Your task to perform on an android device: Open the stopwatch Image 0: 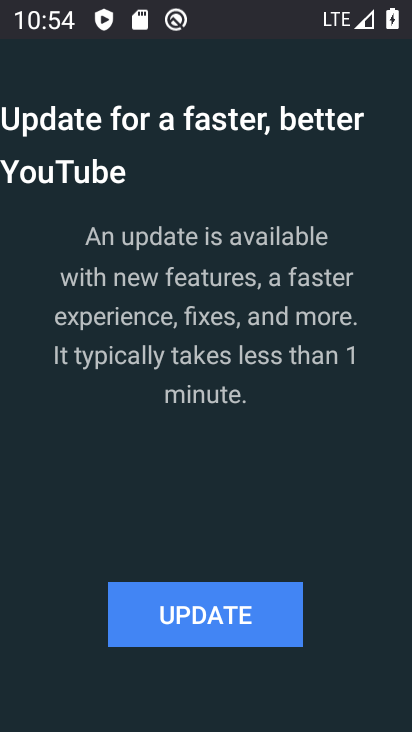
Step 0: press back button
Your task to perform on an android device: Open the stopwatch Image 1: 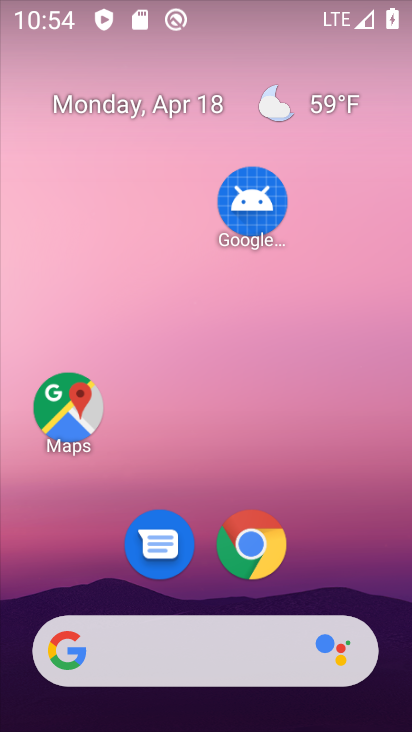
Step 1: drag from (193, 571) to (226, 230)
Your task to perform on an android device: Open the stopwatch Image 2: 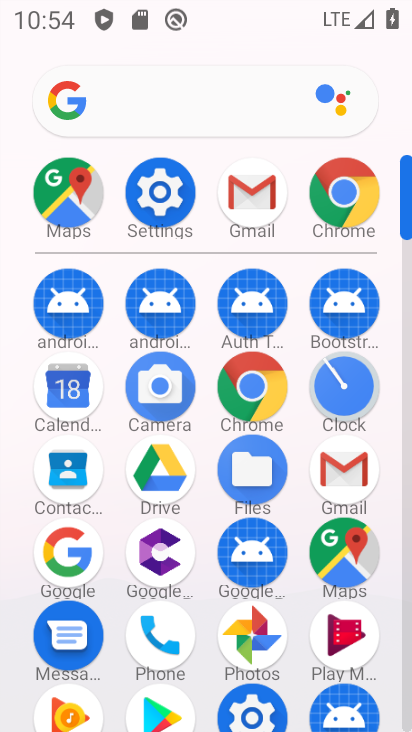
Step 2: click (331, 387)
Your task to perform on an android device: Open the stopwatch Image 3: 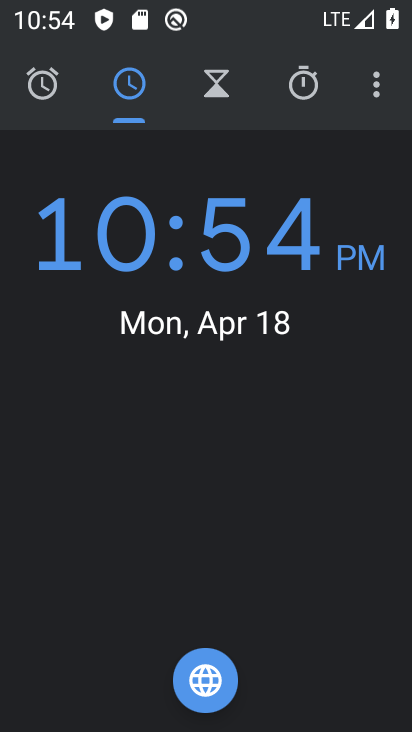
Step 3: click (317, 90)
Your task to perform on an android device: Open the stopwatch Image 4: 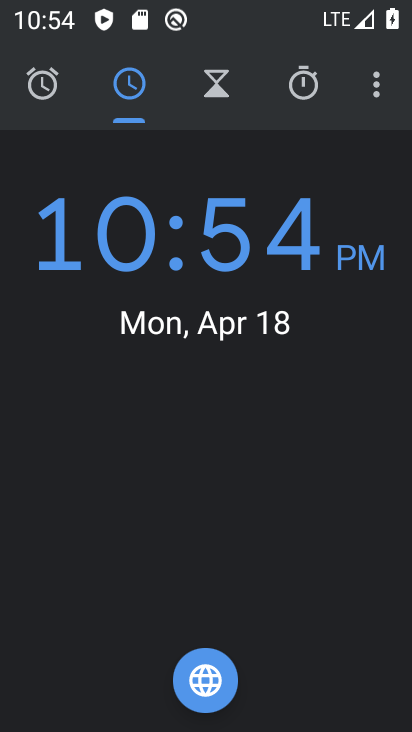
Step 4: click (310, 72)
Your task to perform on an android device: Open the stopwatch Image 5: 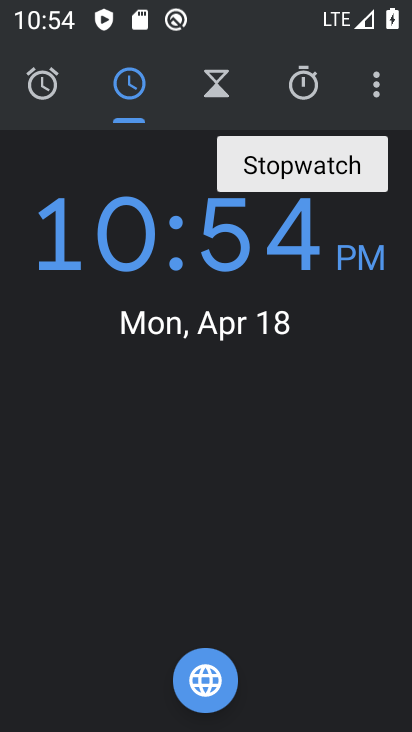
Step 5: click (223, 76)
Your task to perform on an android device: Open the stopwatch Image 6: 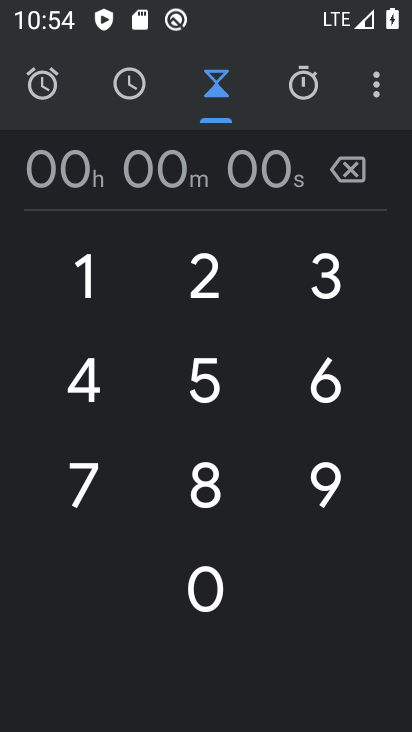
Step 6: click (297, 85)
Your task to perform on an android device: Open the stopwatch Image 7: 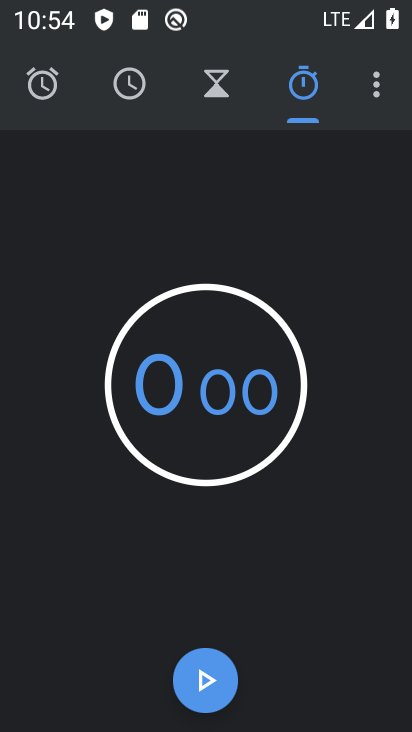
Step 7: click (201, 658)
Your task to perform on an android device: Open the stopwatch Image 8: 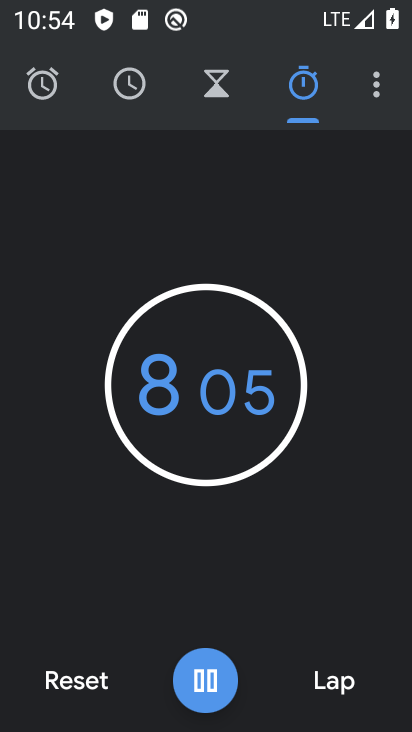
Step 8: click (200, 681)
Your task to perform on an android device: Open the stopwatch Image 9: 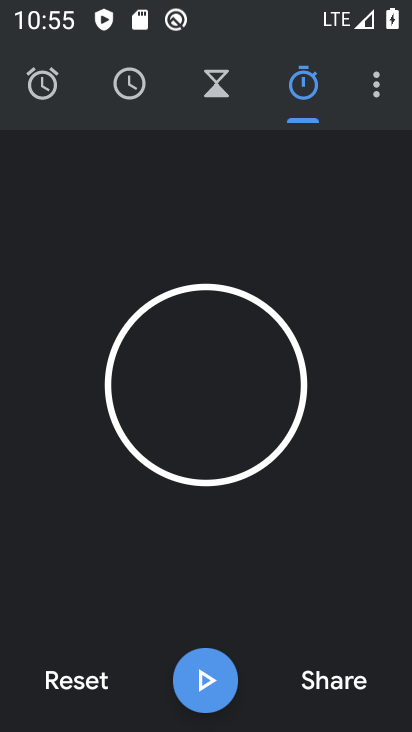
Step 9: task complete